Your task to perform on an android device: turn off sleep mode Image 0: 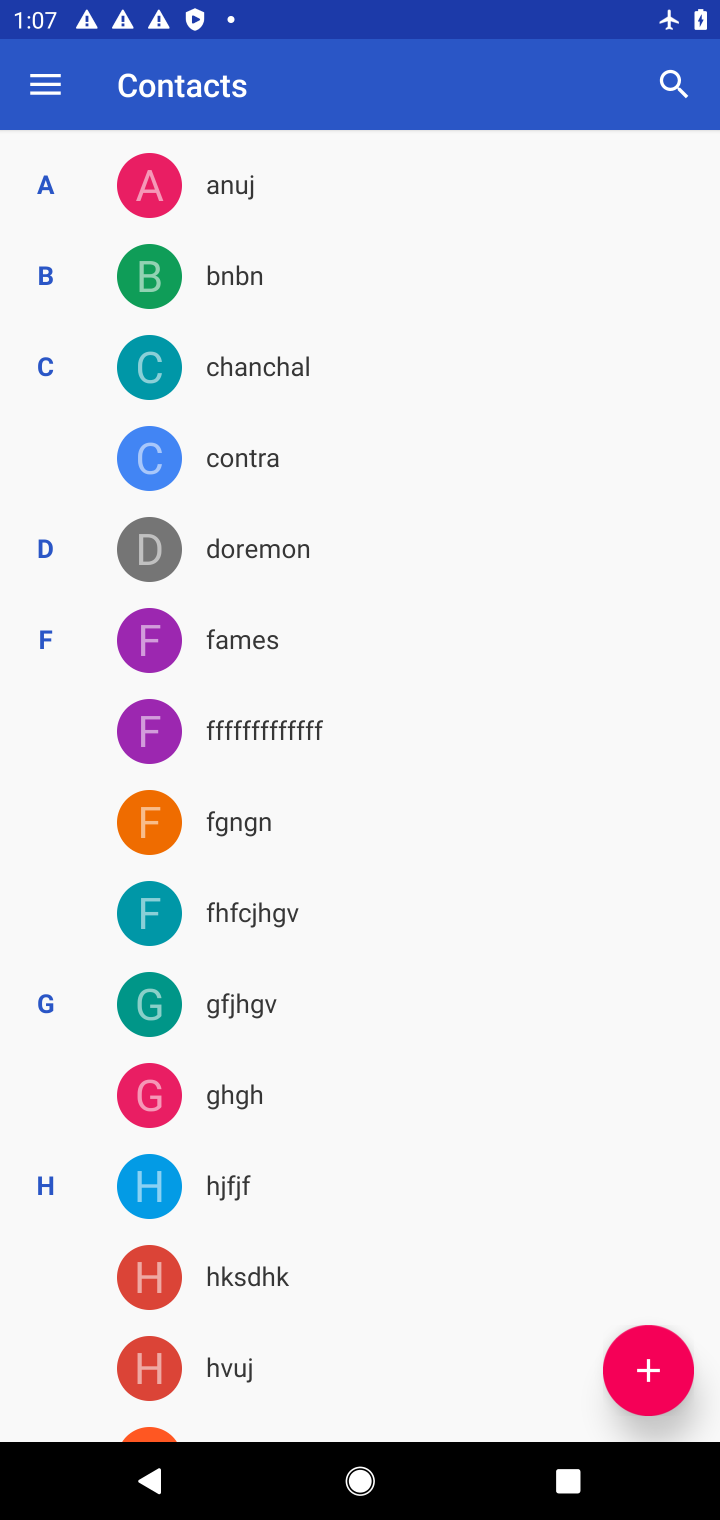
Step 0: press home button
Your task to perform on an android device: turn off sleep mode Image 1: 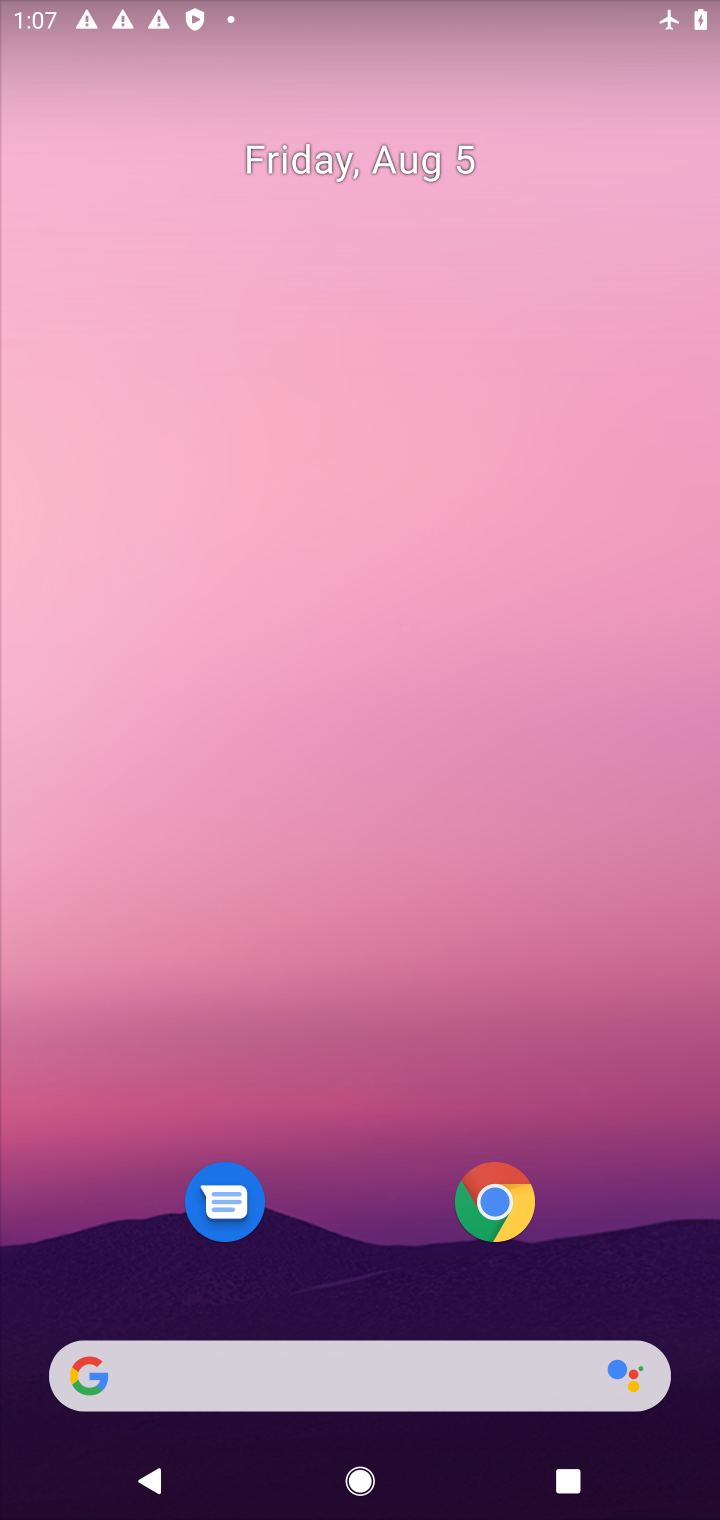
Step 1: drag from (378, 1122) to (514, 232)
Your task to perform on an android device: turn off sleep mode Image 2: 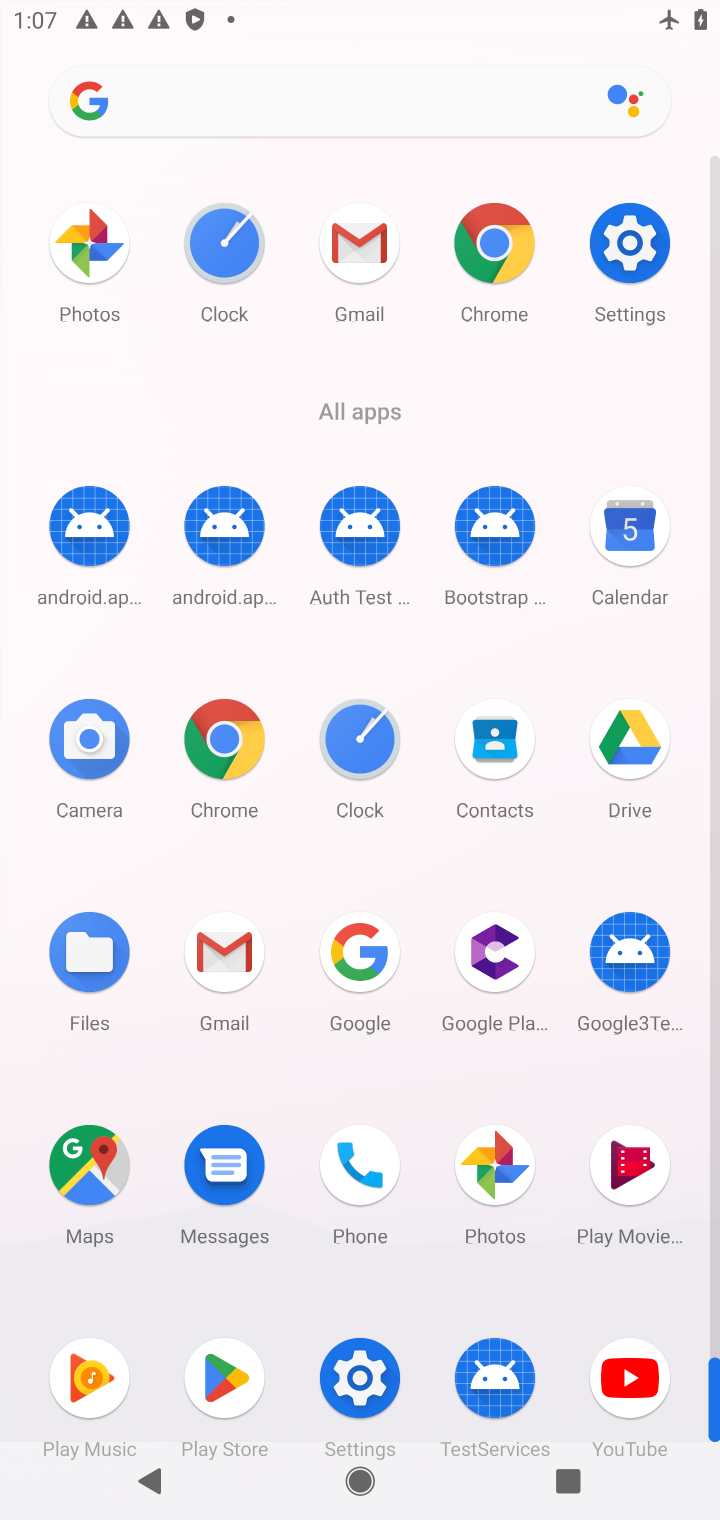
Step 2: click (360, 1350)
Your task to perform on an android device: turn off sleep mode Image 3: 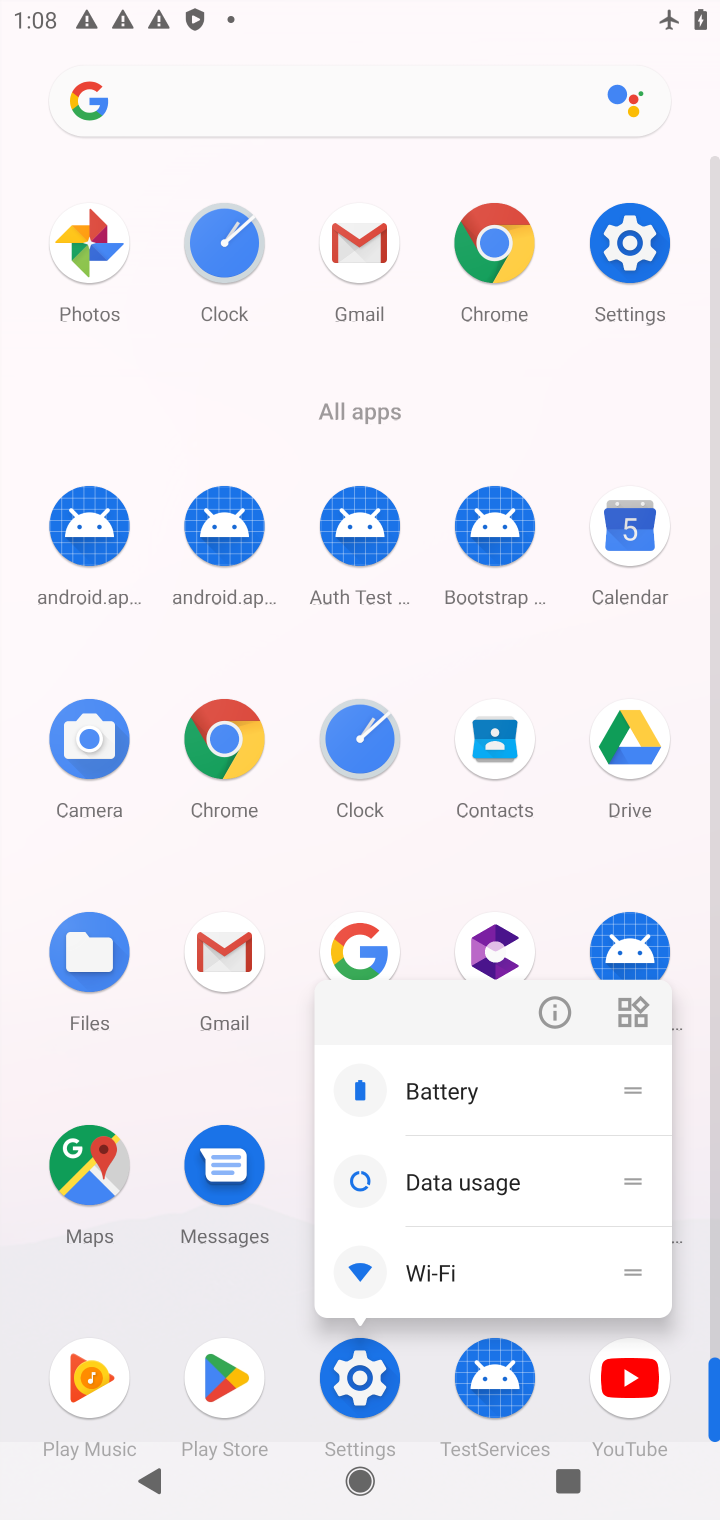
Step 3: click (361, 1352)
Your task to perform on an android device: turn off sleep mode Image 4: 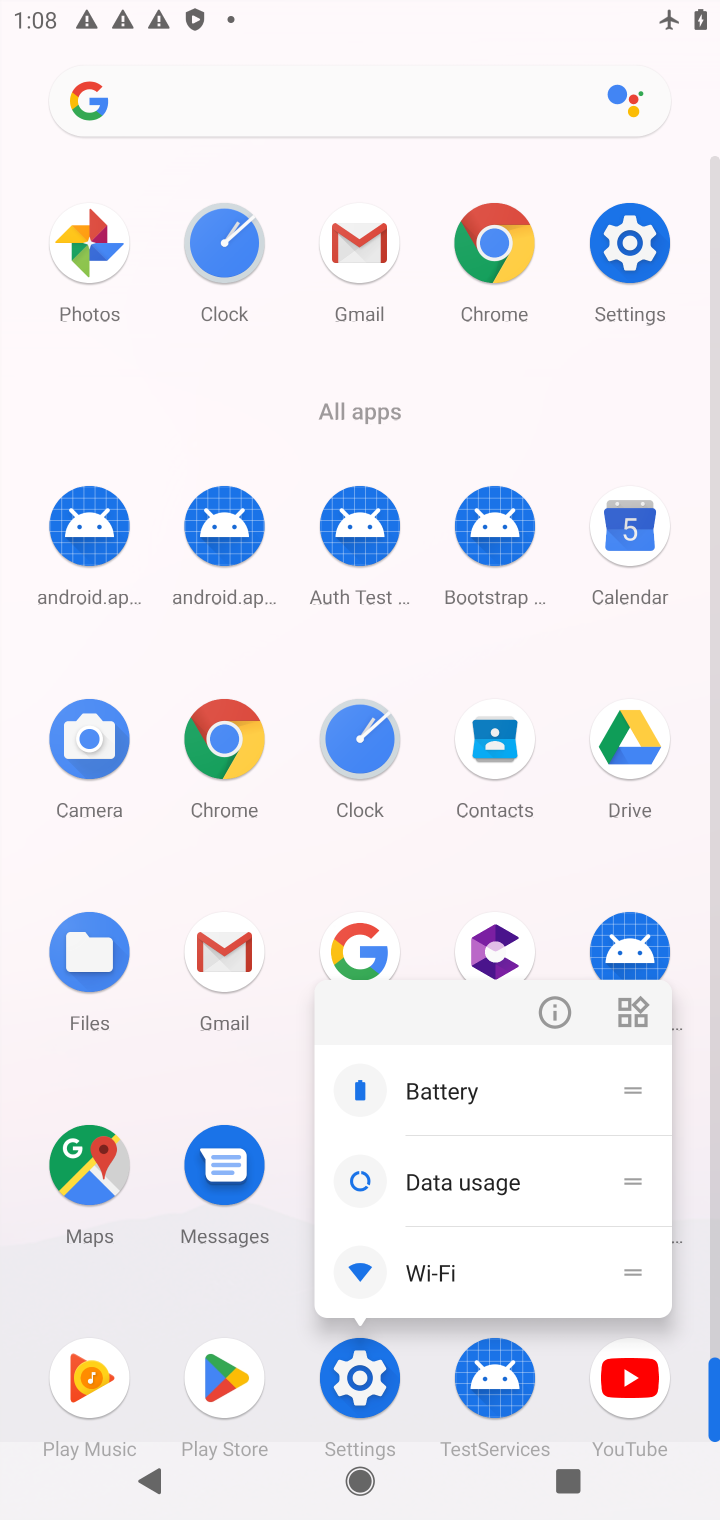
Step 4: click (358, 1369)
Your task to perform on an android device: turn off sleep mode Image 5: 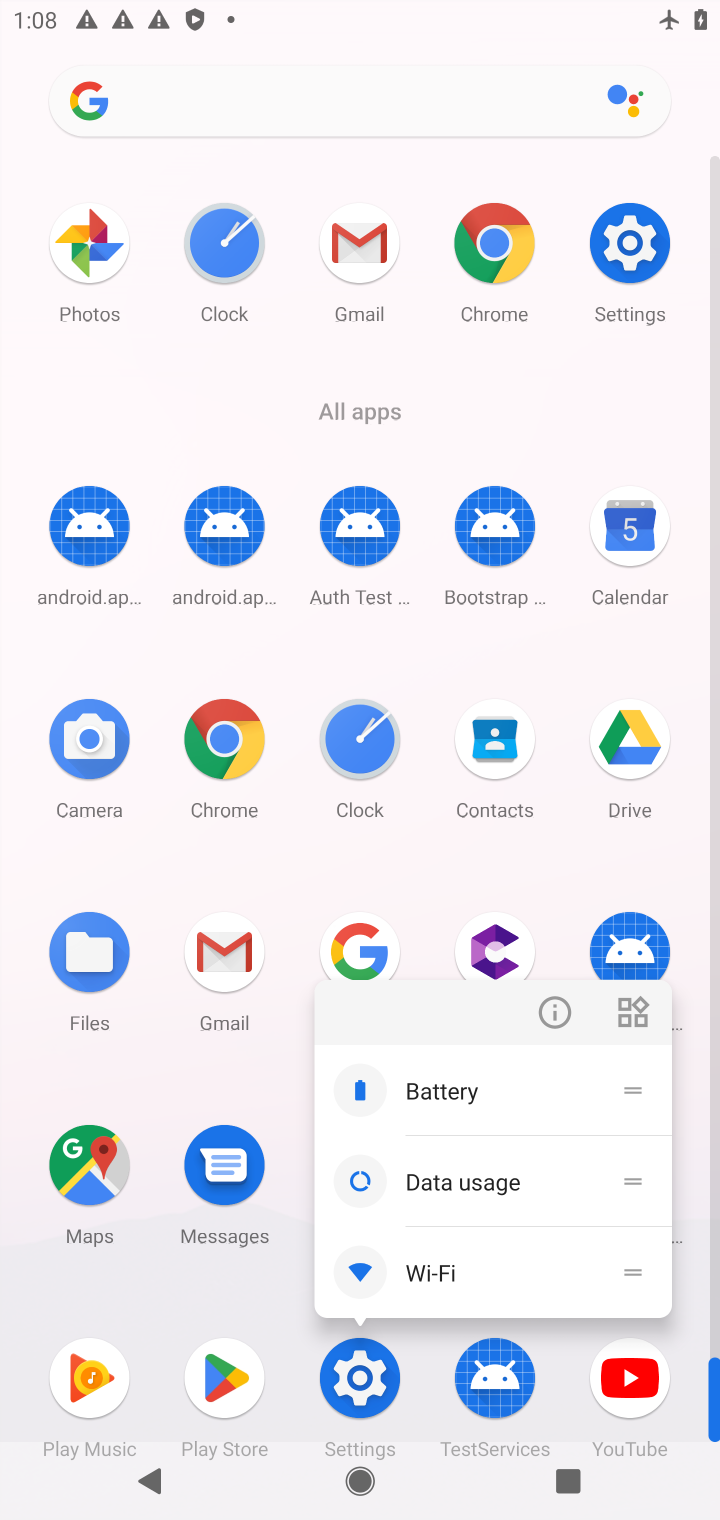
Step 5: click (265, 1280)
Your task to perform on an android device: turn off sleep mode Image 6: 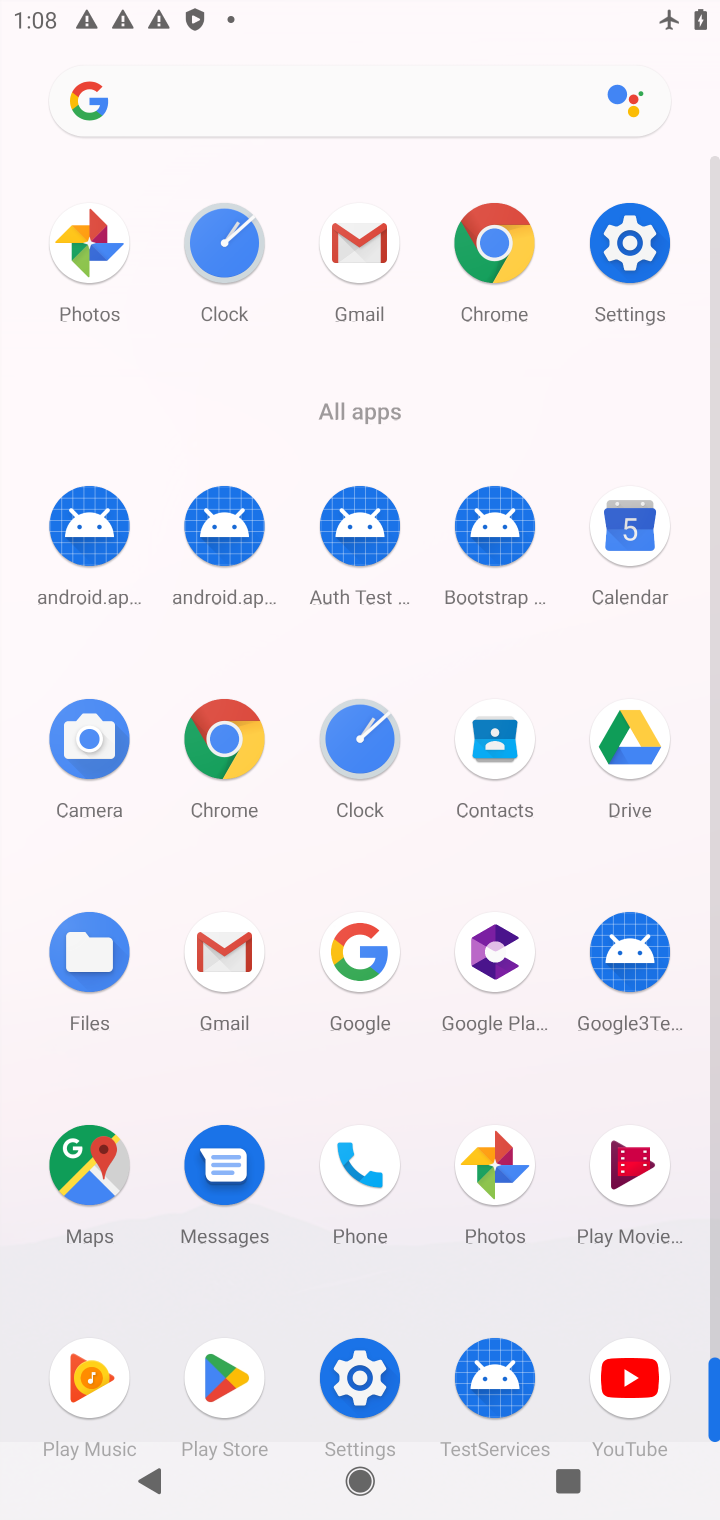
Step 6: click (364, 1371)
Your task to perform on an android device: turn off sleep mode Image 7: 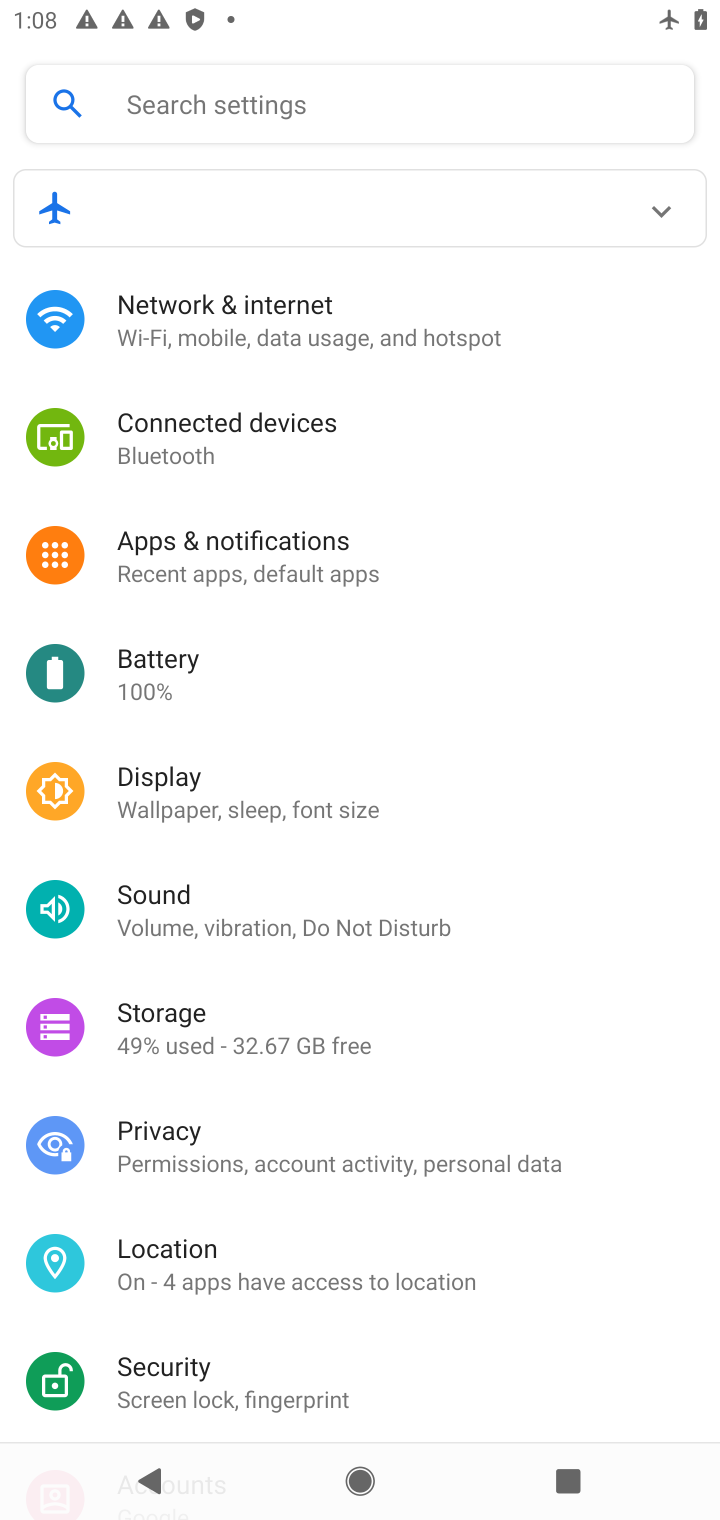
Step 7: click (231, 811)
Your task to perform on an android device: turn off sleep mode Image 8: 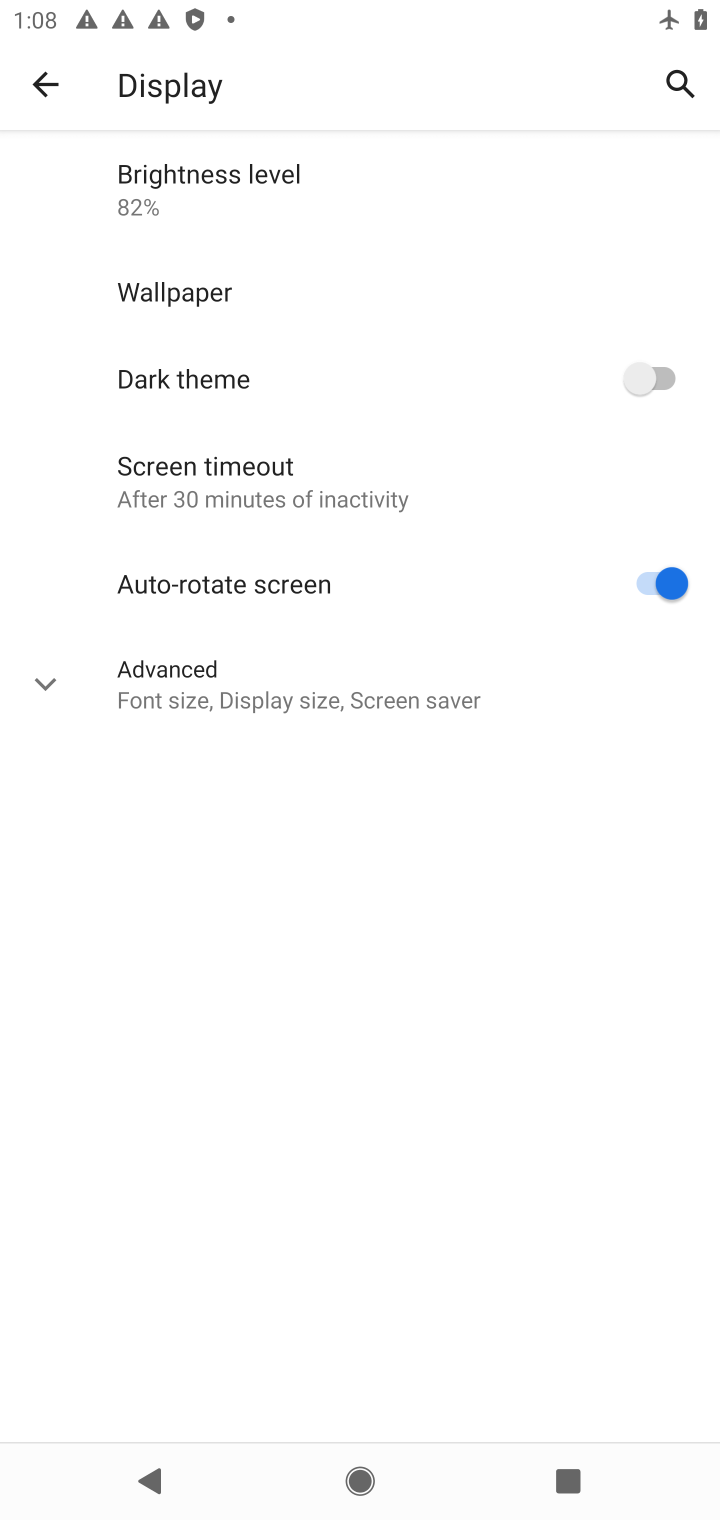
Step 8: click (255, 489)
Your task to perform on an android device: turn off sleep mode Image 9: 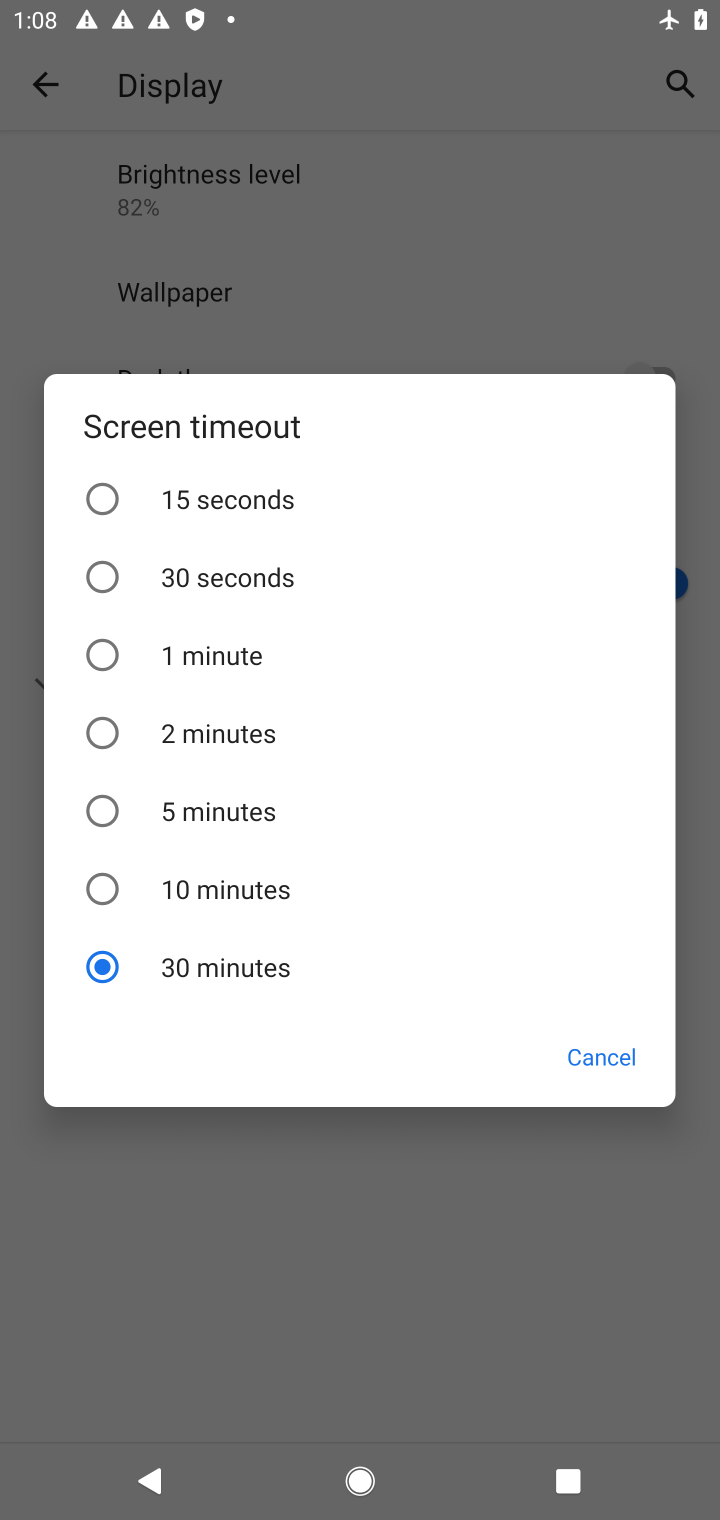
Step 9: task complete